Your task to perform on an android device: change your default location settings in chrome Image 0: 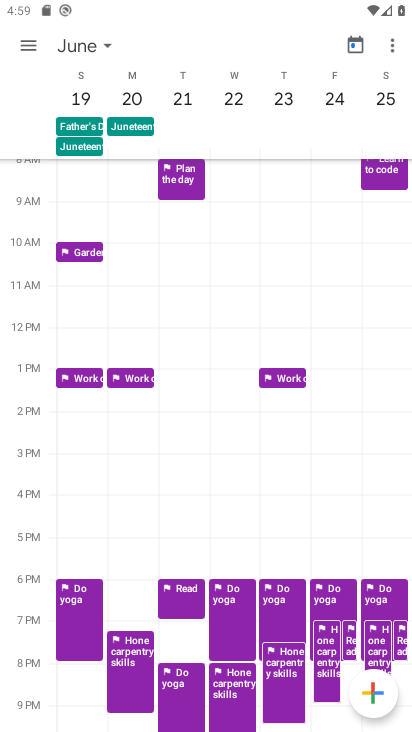
Step 0: press back button
Your task to perform on an android device: change your default location settings in chrome Image 1: 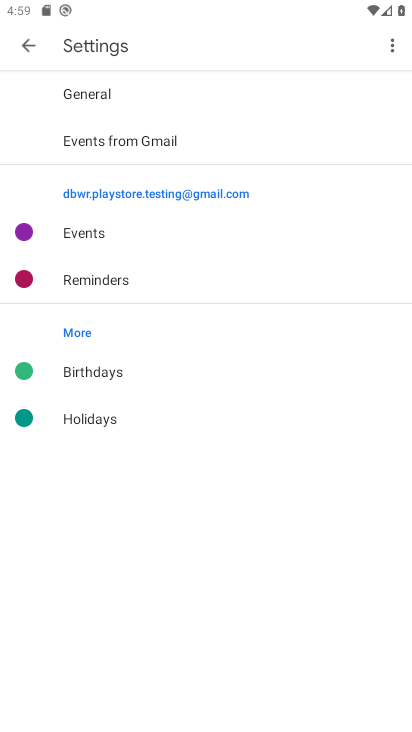
Step 1: press back button
Your task to perform on an android device: change your default location settings in chrome Image 2: 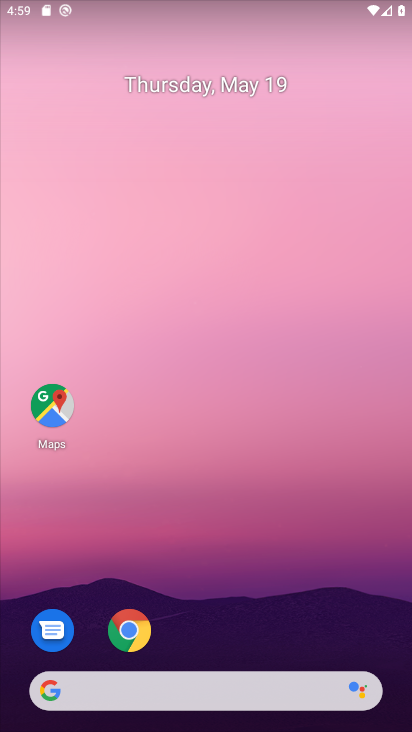
Step 2: drag from (288, 593) to (255, 52)
Your task to perform on an android device: change your default location settings in chrome Image 3: 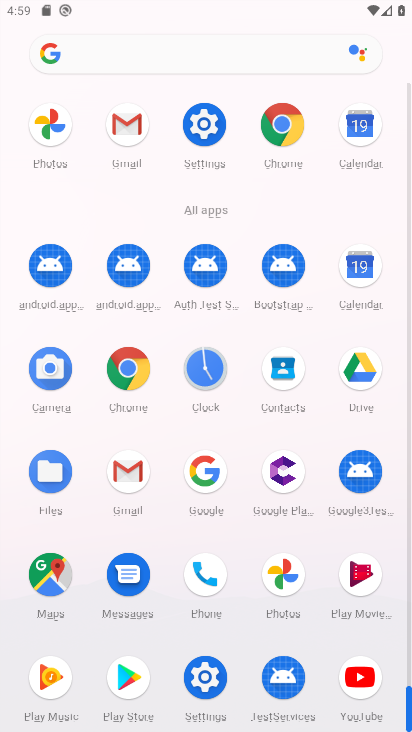
Step 3: drag from (0, 570) to (6, 94)
Your task to perform on an android device: change your default location settings in chrome Image 4: 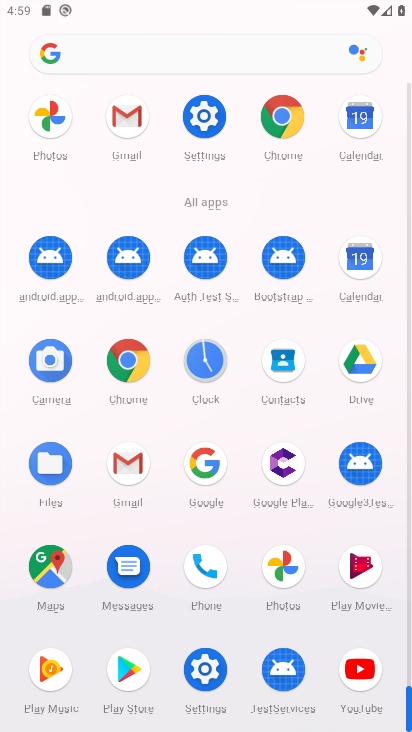
Step 4: drag from (17, 582) to (30, 207)
Your task to perform on an android device: change your default location settings in chrome Image 5: 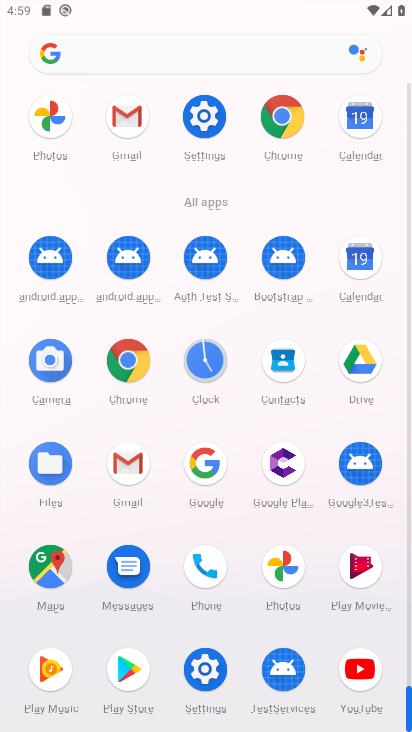
Step 5: click (121, 359)
Your task to perform on an android device: change your default location settings in chrome Image 6: 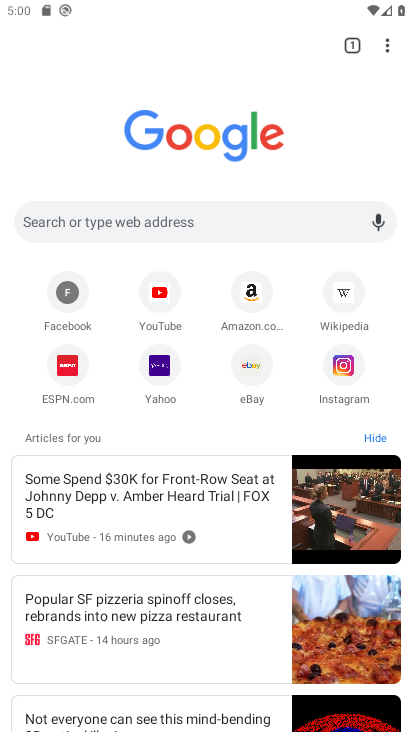
Step 6: drag from (392, 40) to (243, 376)
Your task to perform on an android device: change your default location settings in chrome Image 7: 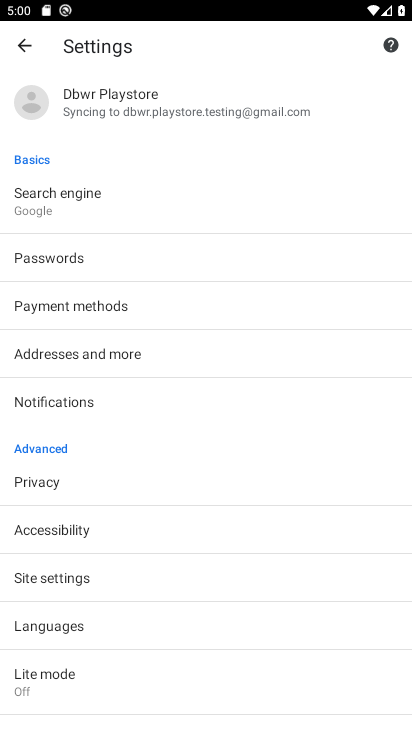
Step 7: drag from (202, 526) to (218, 200)
Your task to perform on an android device: change your default location settings in chrome Image 8: 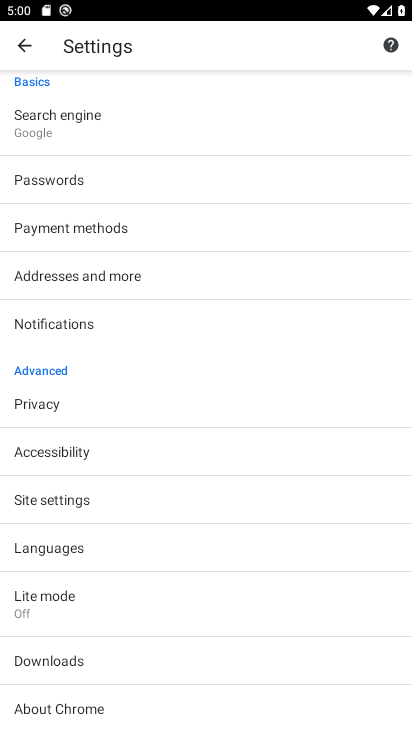
Step 8: drag from (177, 573) to (168, 194)
Your task to perform on an android device: change your default location settings in chrome Image 9: 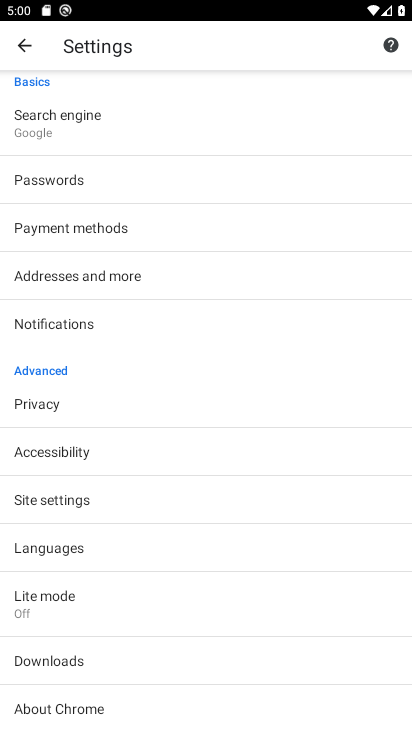
Step 9: click (86, 500)
Your task to perform on an android device: change your default location settings in chrome Image 10: 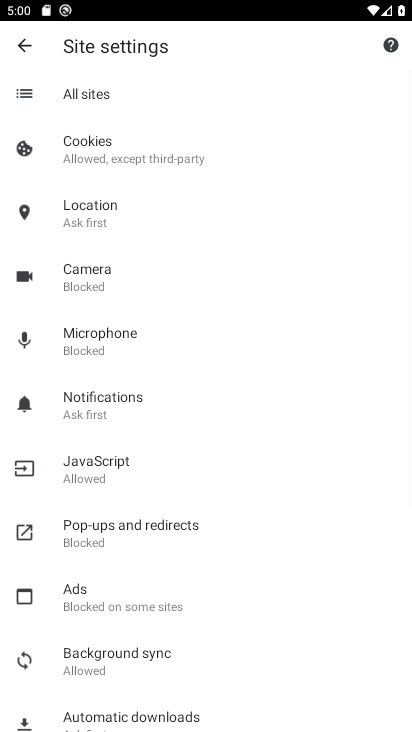
Step 10: click (113, 199)
Your task to perform on an android device: change your default location settings in chrome Image 11: 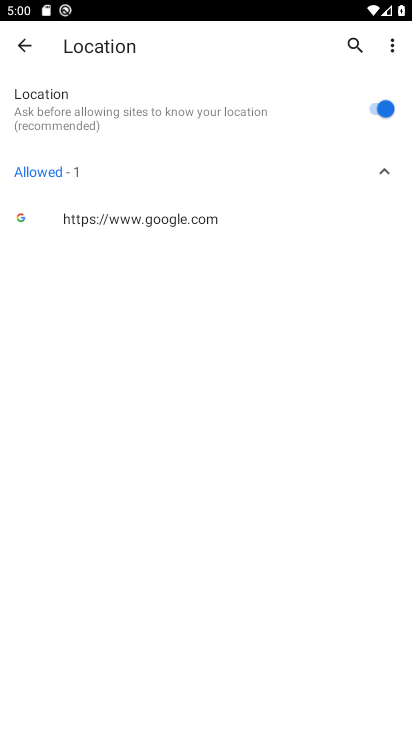
Step 11: click (369, 112)
Your task to perform on an android device: change your default location settings in chrome Image 12: 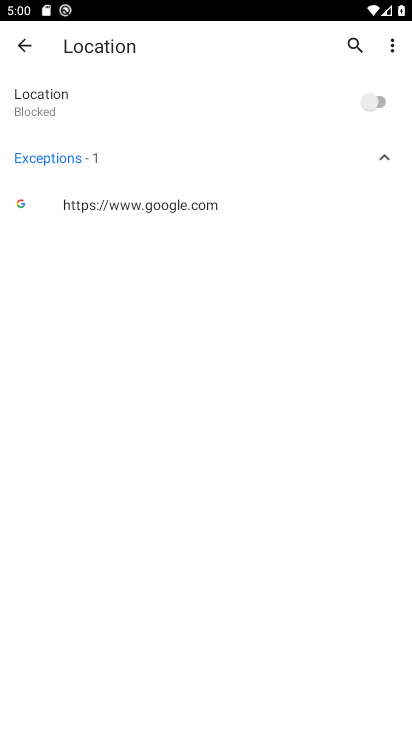
Step 12: task complete